Your task to perform on an android device: open the mobile data screen to see how much data has been used Image 0: 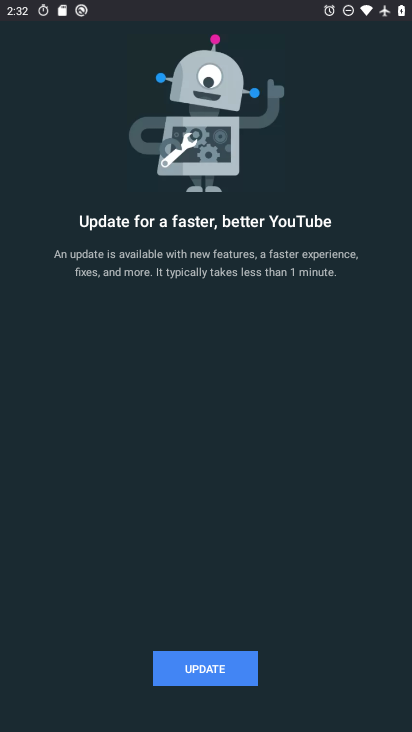
Step 0: press home button
Your task to perform on an android device: open the mobile data screen to see how much data has been used Image 1: 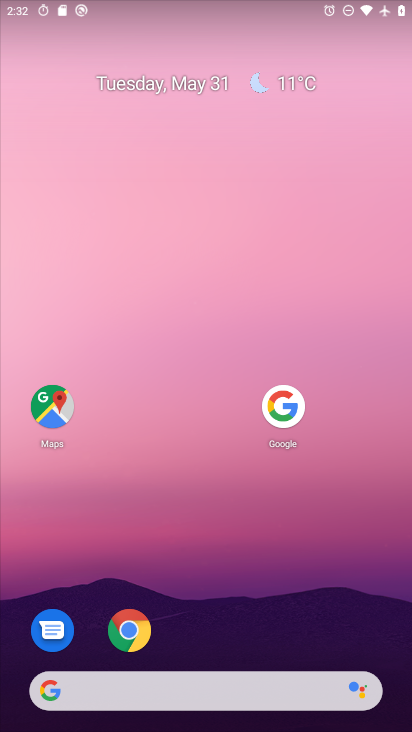
Step 1: drag from (239, 669) to (354, 114)
Your task to perform on an android device: open the mobile data screen to see how much data has been used Image 2: 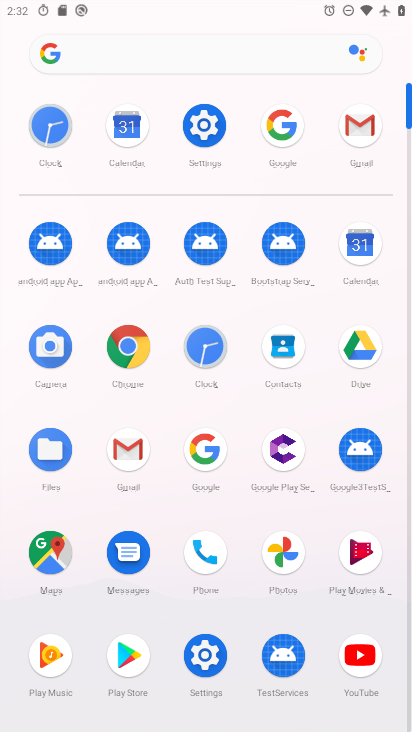
Step 2: click (206, 131)
Your task to perform on an android device: open the mobile data screen to see how much data has been used Image 3: 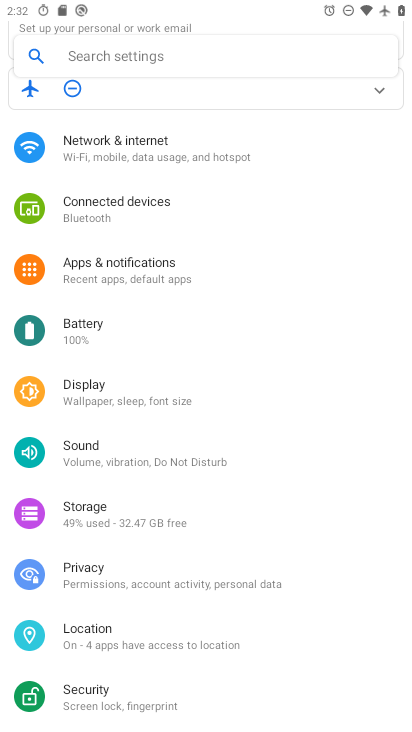
Step 3: click (153, 152)
Your task to perform on an android device: open the mobile data screen to see how much data has been used Image 4: 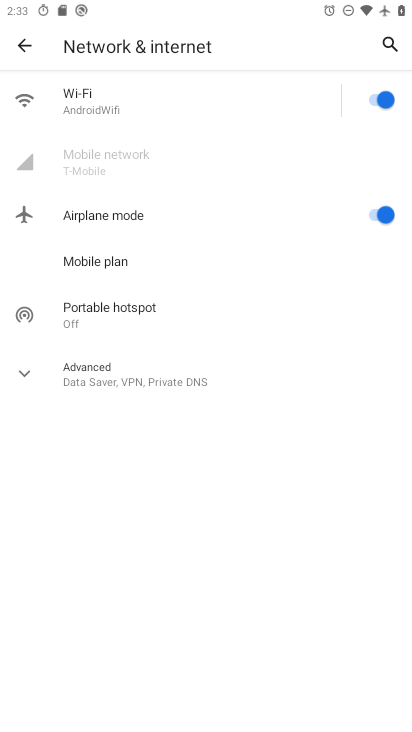
Step 4: task complete